Your task to perform on an android device: Go to Amazon Image 0: 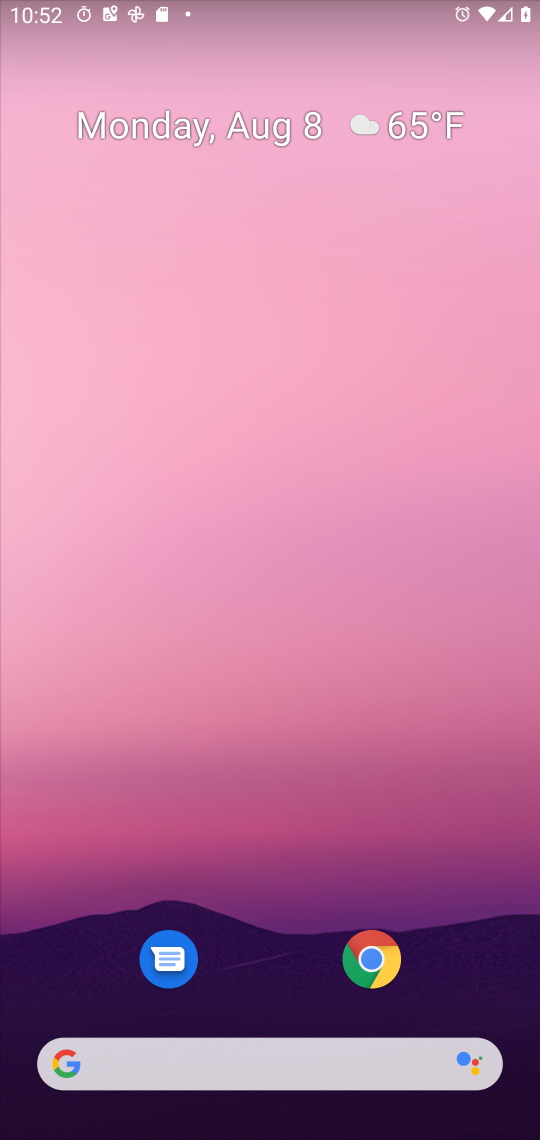
Step 0: drag from (534, 1011) to (229, 24)
Your task to perform on an android device: Go to Amazon Image 1: 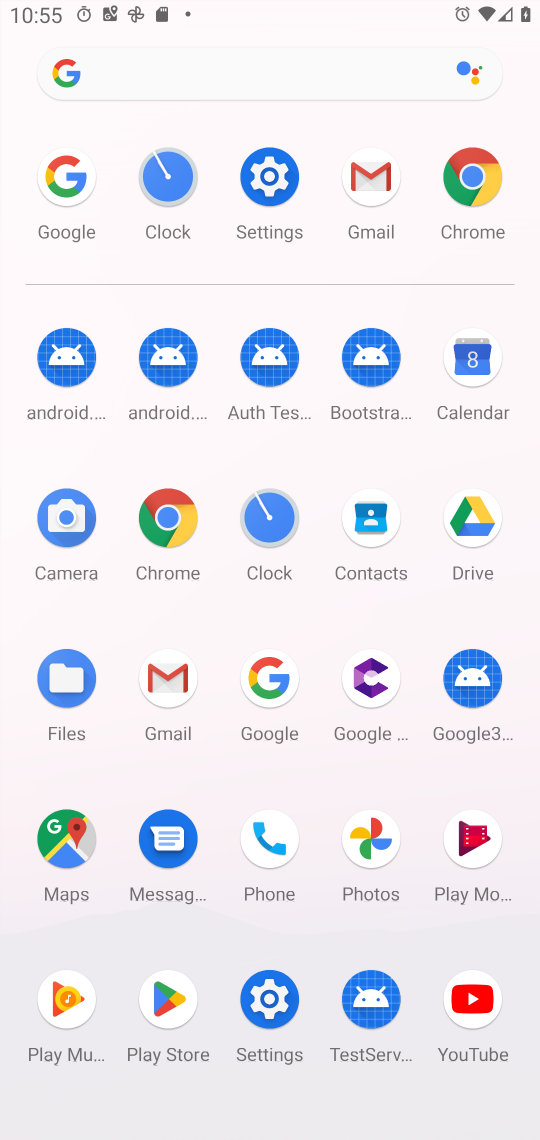
Step 1: click (263, 674)
Your task to perform on an android device: Go to Amazon Image 2: 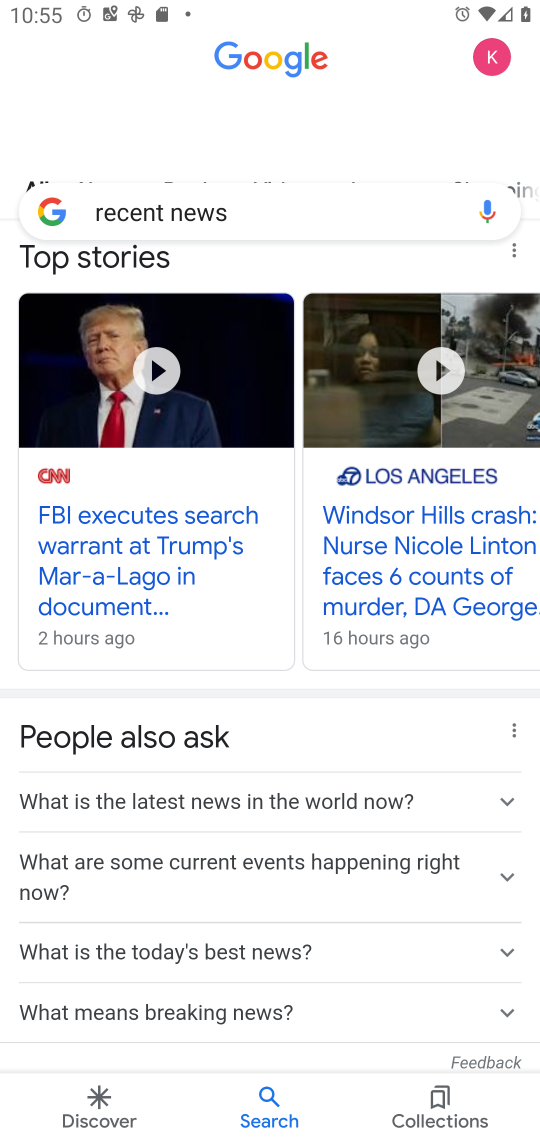
Step 2: press back button
Your task to perform on an android device: Go to Amazon Image 3: 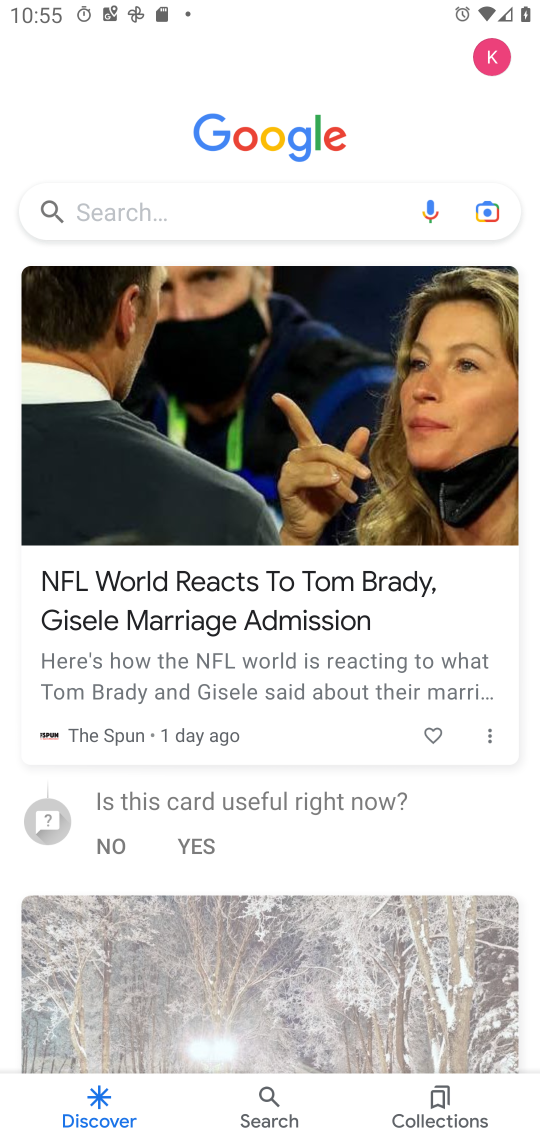
Step 3: click (128, 215)
Your task to perform on an android device: Go to Amazon Image 4: 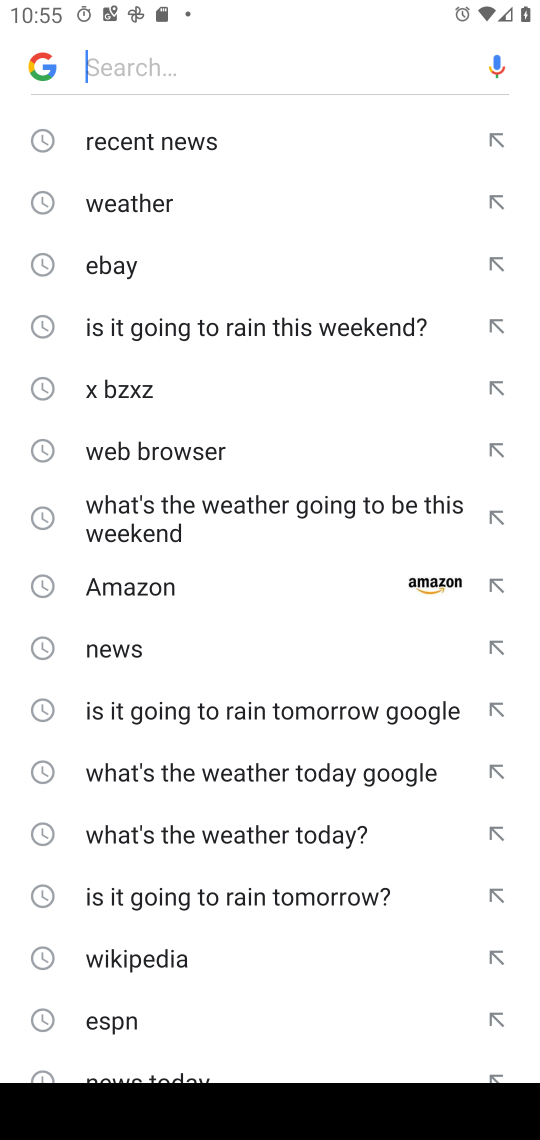
Step 4: click (197, 569)
Your task to perform on an android device: Go to Amazon Image 5: 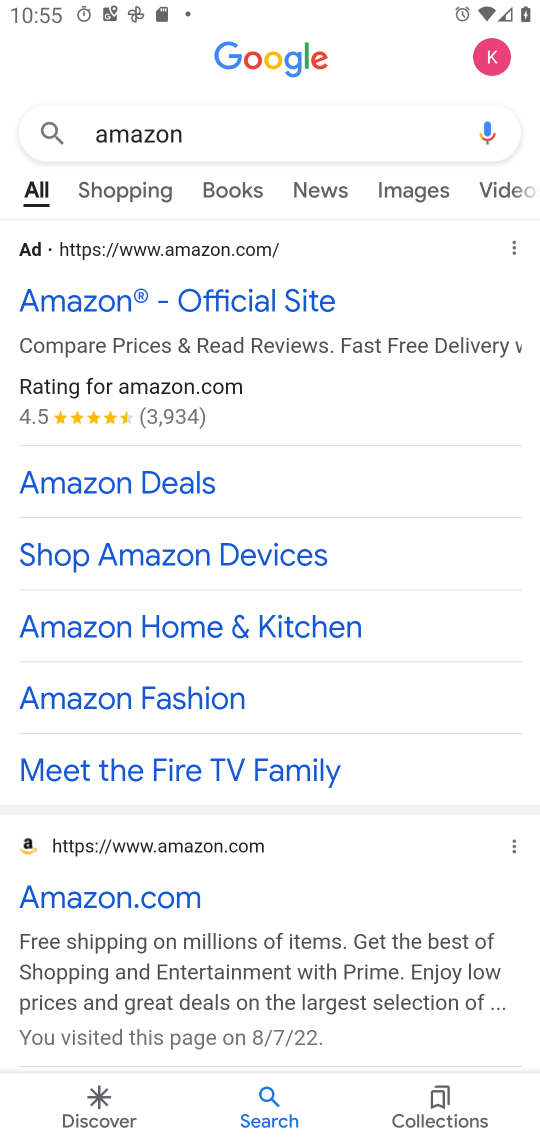
Step 5: task complete